Your task to perform on an android device: Open eBay Image 0: 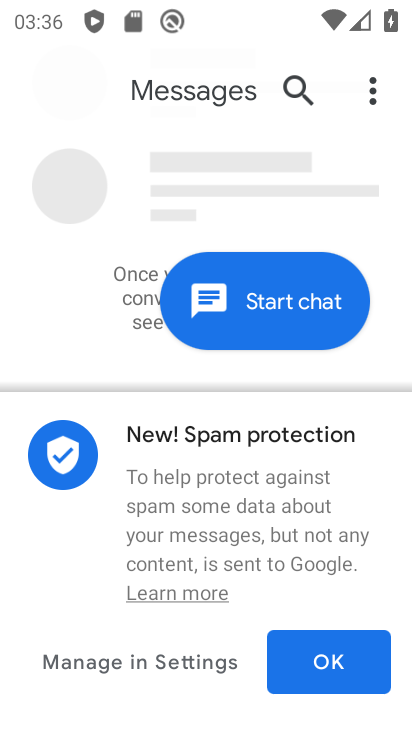
Step 0: press back button
Your task to perform on an android device: Open eBay Image 1: 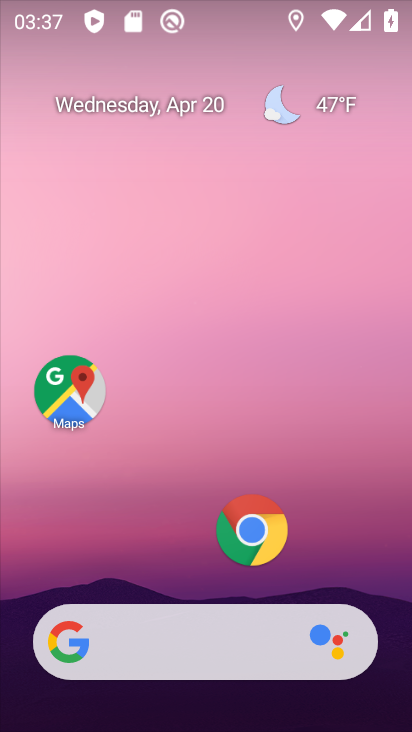
Step 1: click (254, 533)
Your task to perform on an android device: Open eBay Image 2: 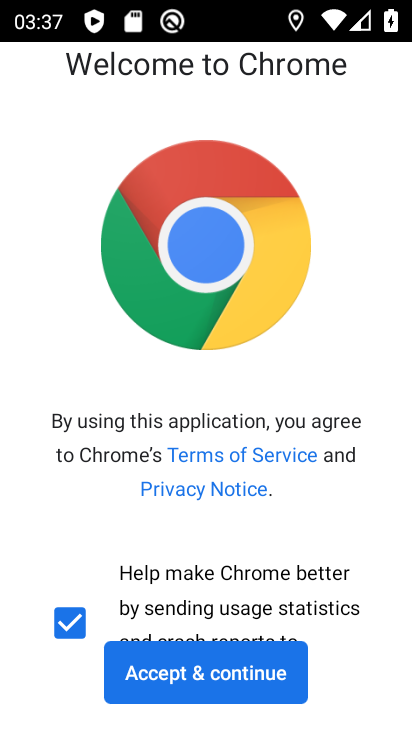
Step 2: click (214, 669)
Your task to perform on an android device: Open eBay Image 3: 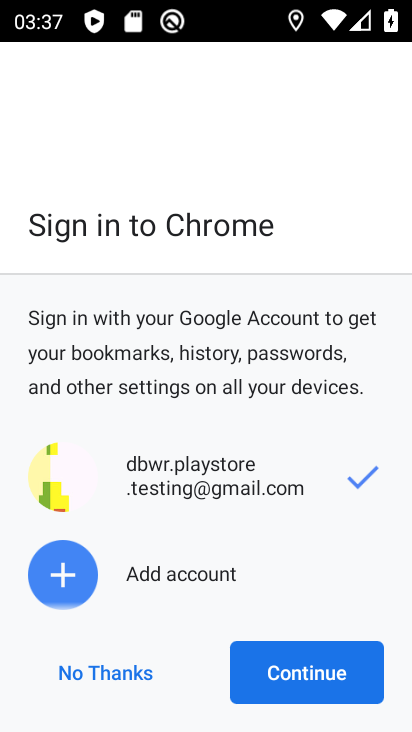
Step 3: click (296, 668)
Your task to perform on an android device: Open eBay Image 4: 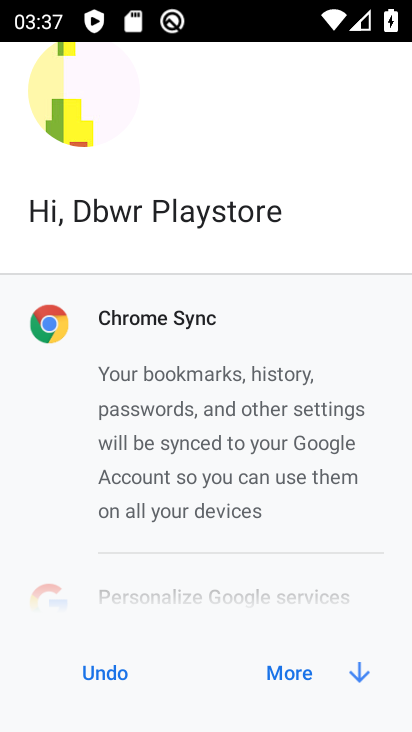
Step 4: click (306, 672)
Your task to perform on an android device: Open eBay Image 5: 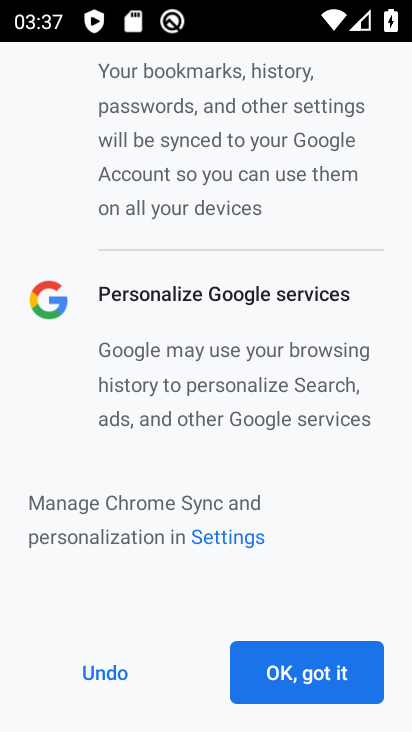
Step 5: click (306, 672)
Your task to perform on an android device: Open eBay Image 6: 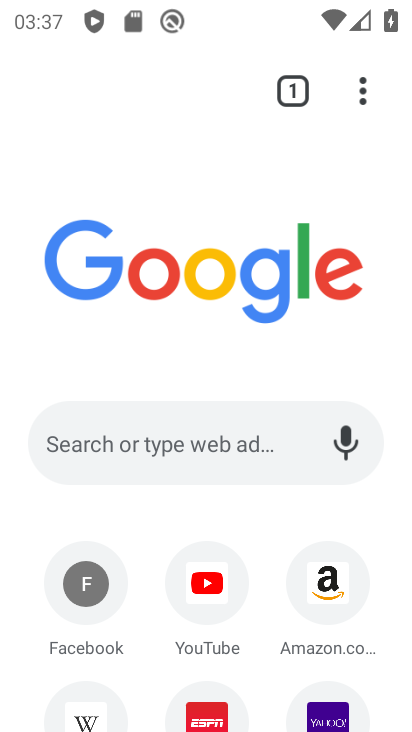
Step 6: click (166, 453)
Your task to perform on an android device: Open eBay Image 7: 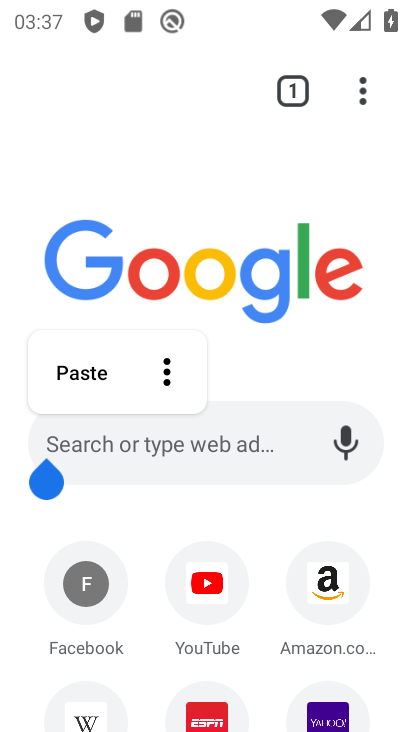
Step 7: click (169, 449)
Your task to perform on an android device: Open eBay Image 8: 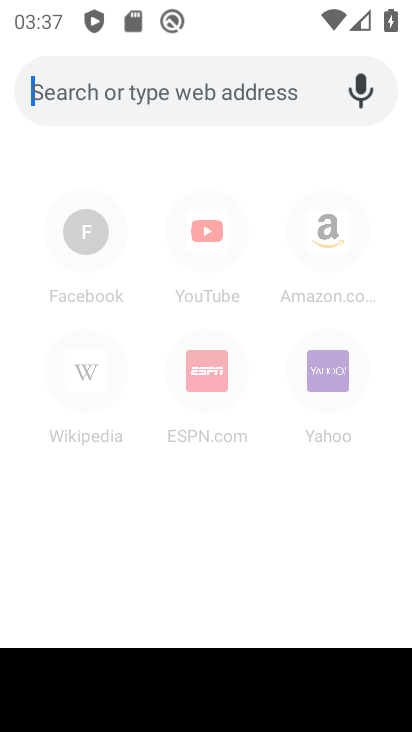
Step 8: click (114, 102)
Your task to perform on an android device: Open eBay Image 9: 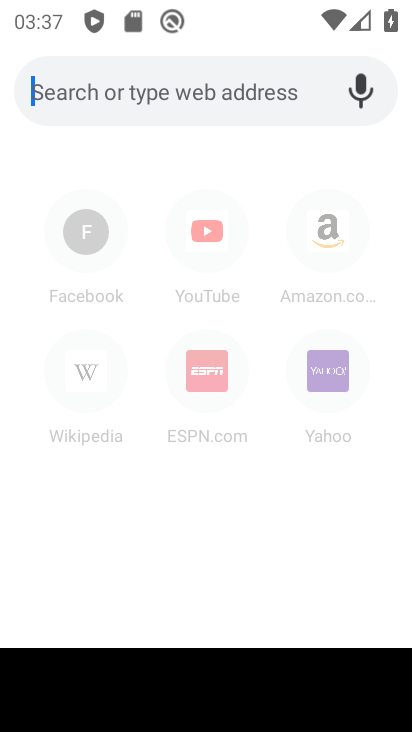
Step 9: type "ebay"
Your task to perform on an android device: Open eBay Image 10: 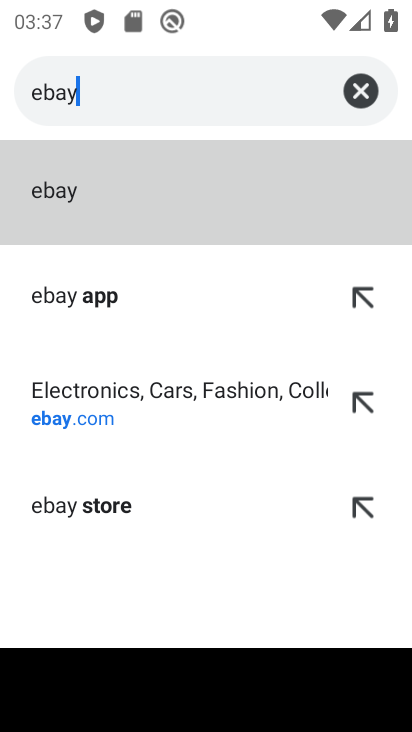
Step 10: click (115, 184)
Your task to perform on an android device: Open eBay Image 11: 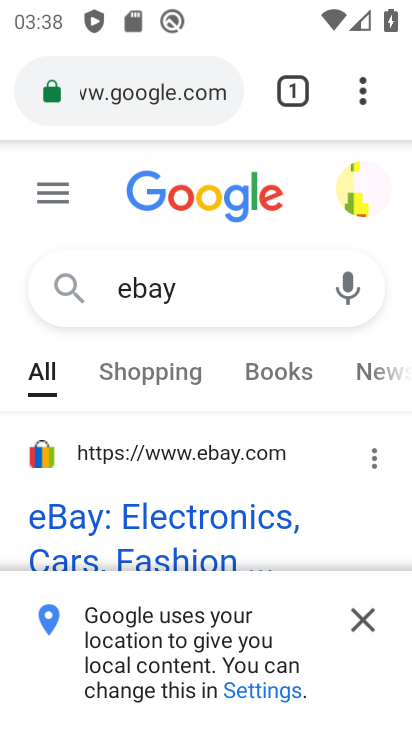
Step 11: click (177, 512)
Your task to perform on an android device: Open eBay Image 12: 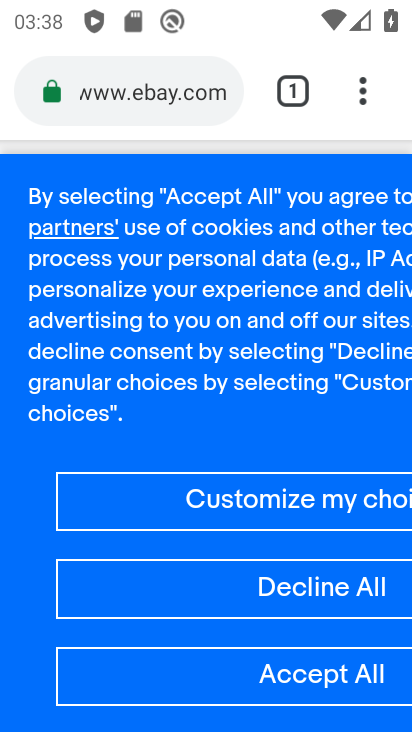
Step 12: task complete